Your task to perform on an android device: Open location settings Image 0: 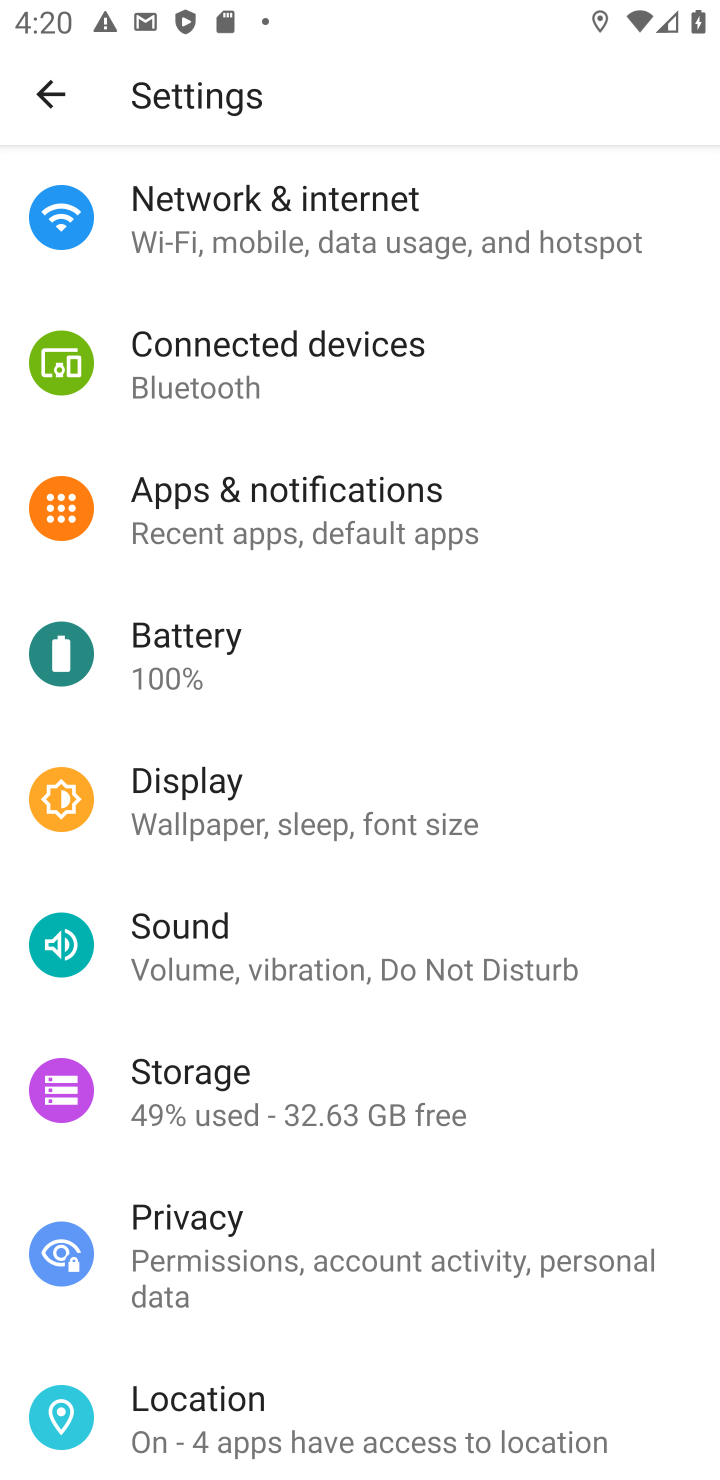
Step 0: press home button
Your task to perform on an android device: Open location settings Image 1: 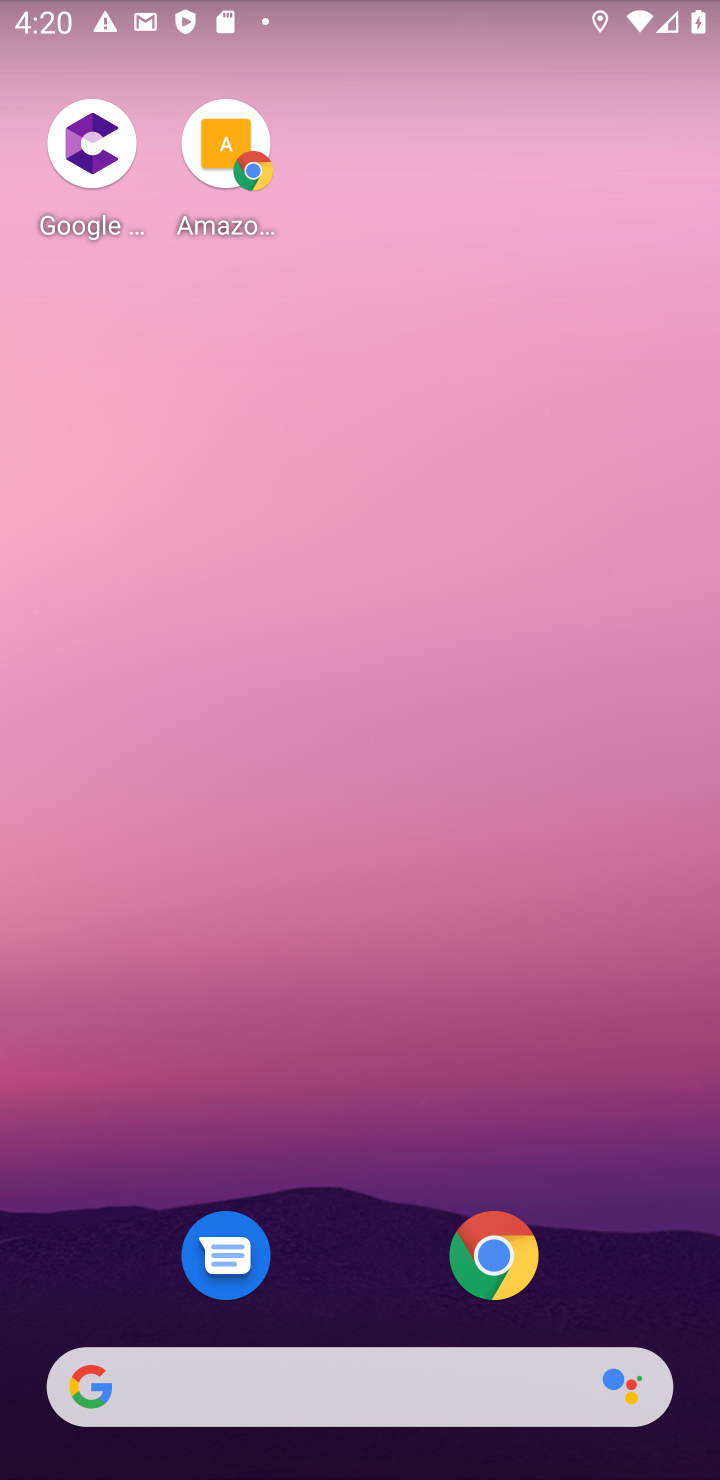
Step 1: drag from (308, 1417) to (568, 132)
Your task to perform on an android device: Open location settings Image 2: 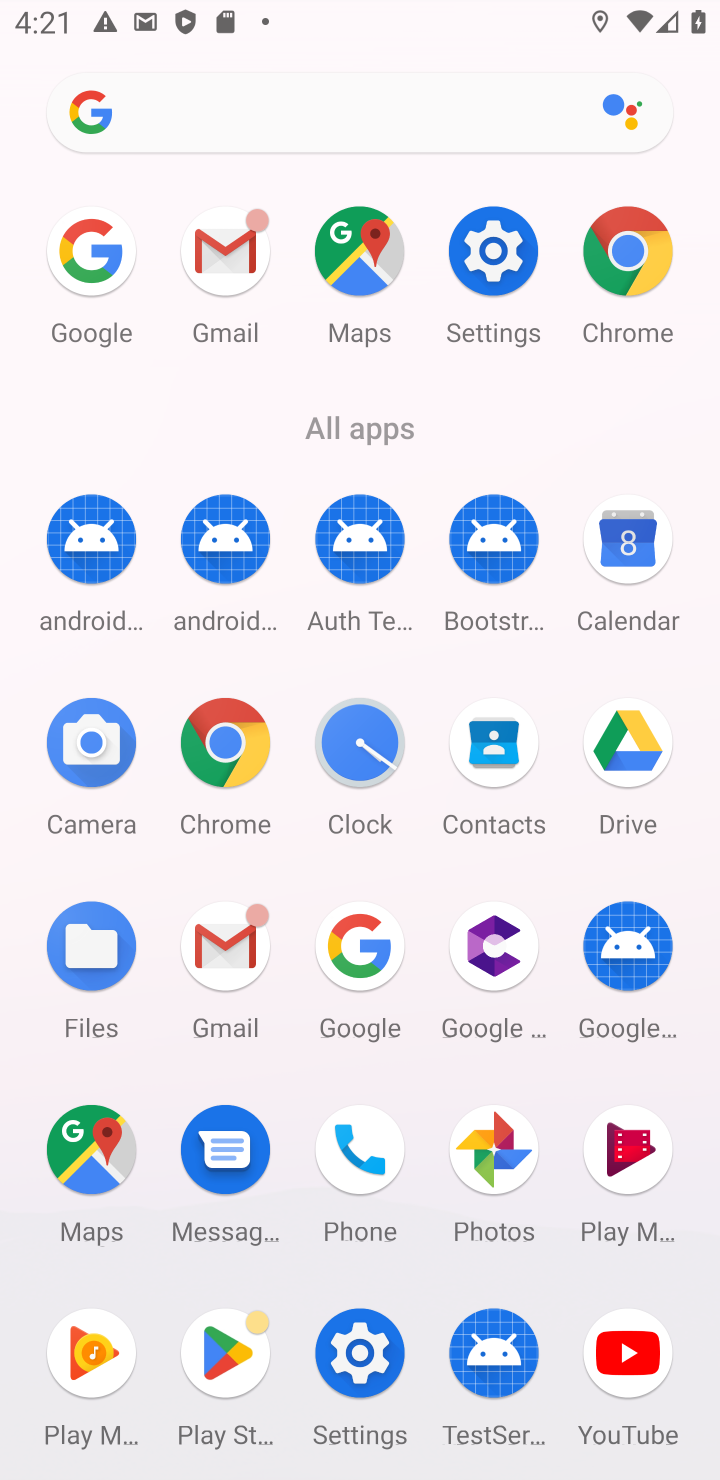
Step 2: click (492, 244)
Your task to perform on an android device: Open location settings Image 3: 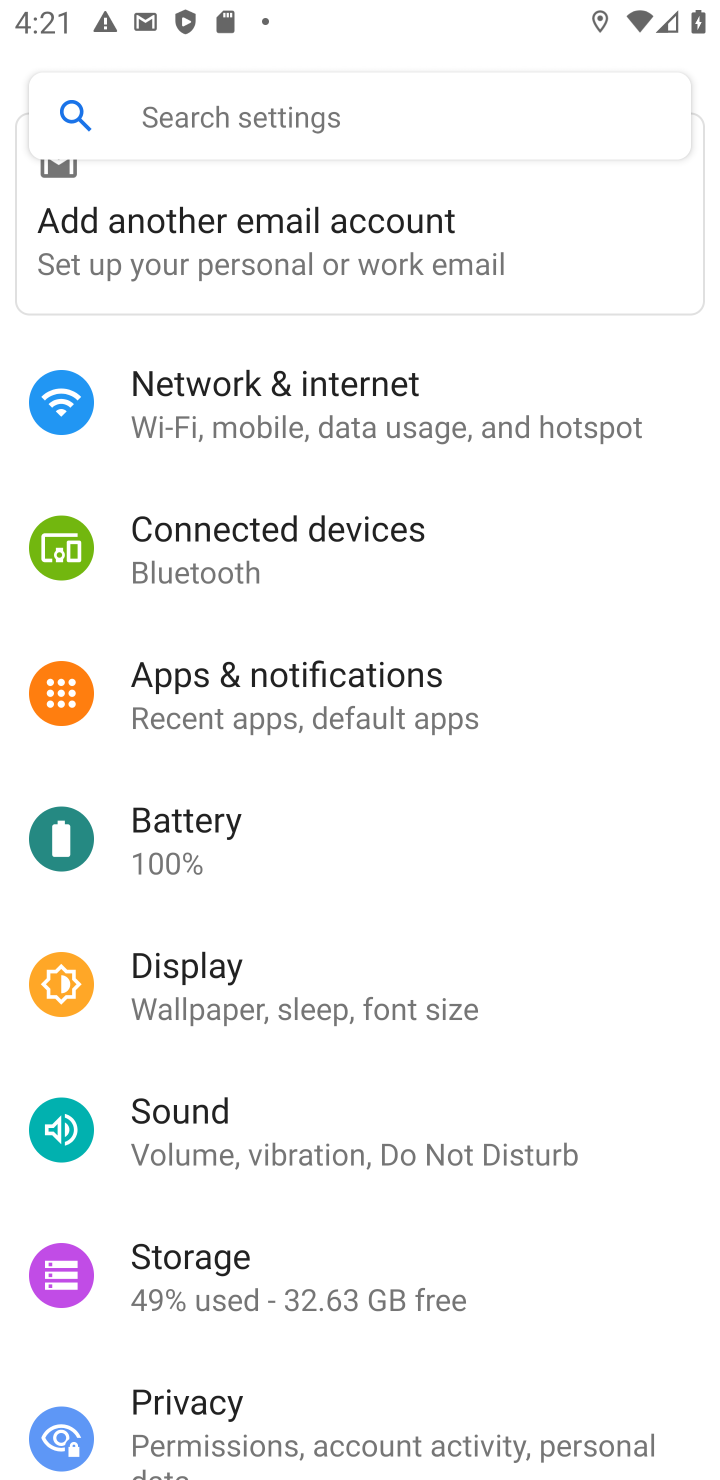
Step 3: drag from (296, 1092) to (412, 880)
Your task to perform on an android device: Open location settings Image 4: 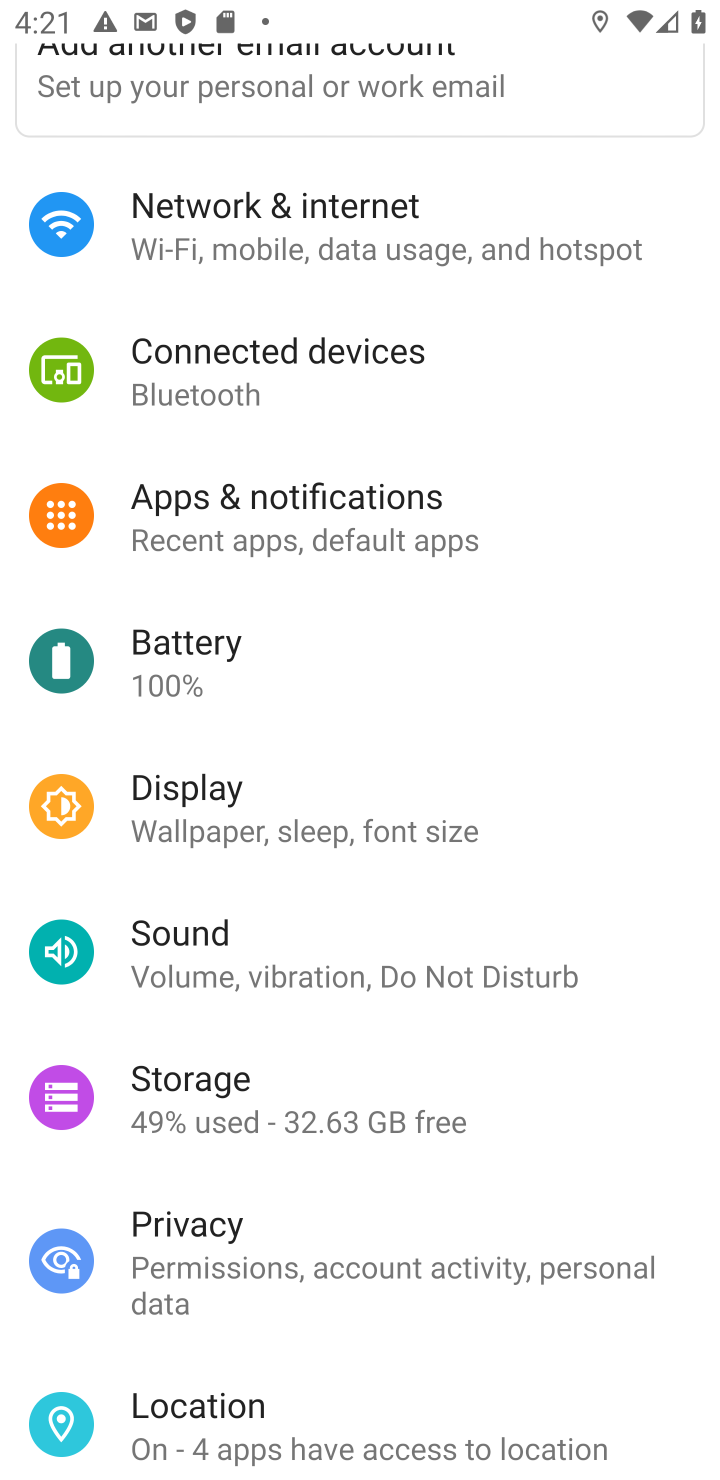
Step 4: drag from (314, 1180) to (424, 940)
Your task to perform on an android device: Open location settings Image 5: 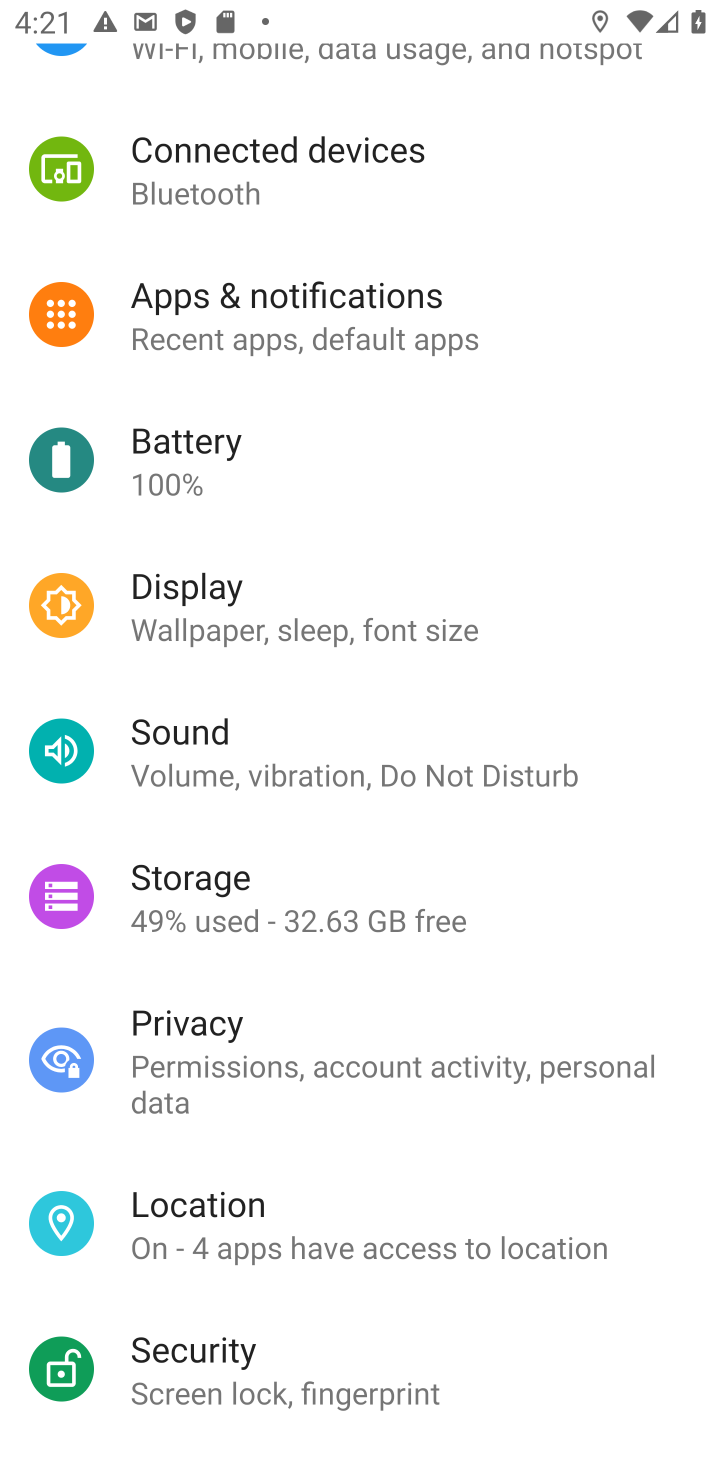
Step 5: click (255, 1209)
Your task to perform on an android device: Open location settings Image 6: 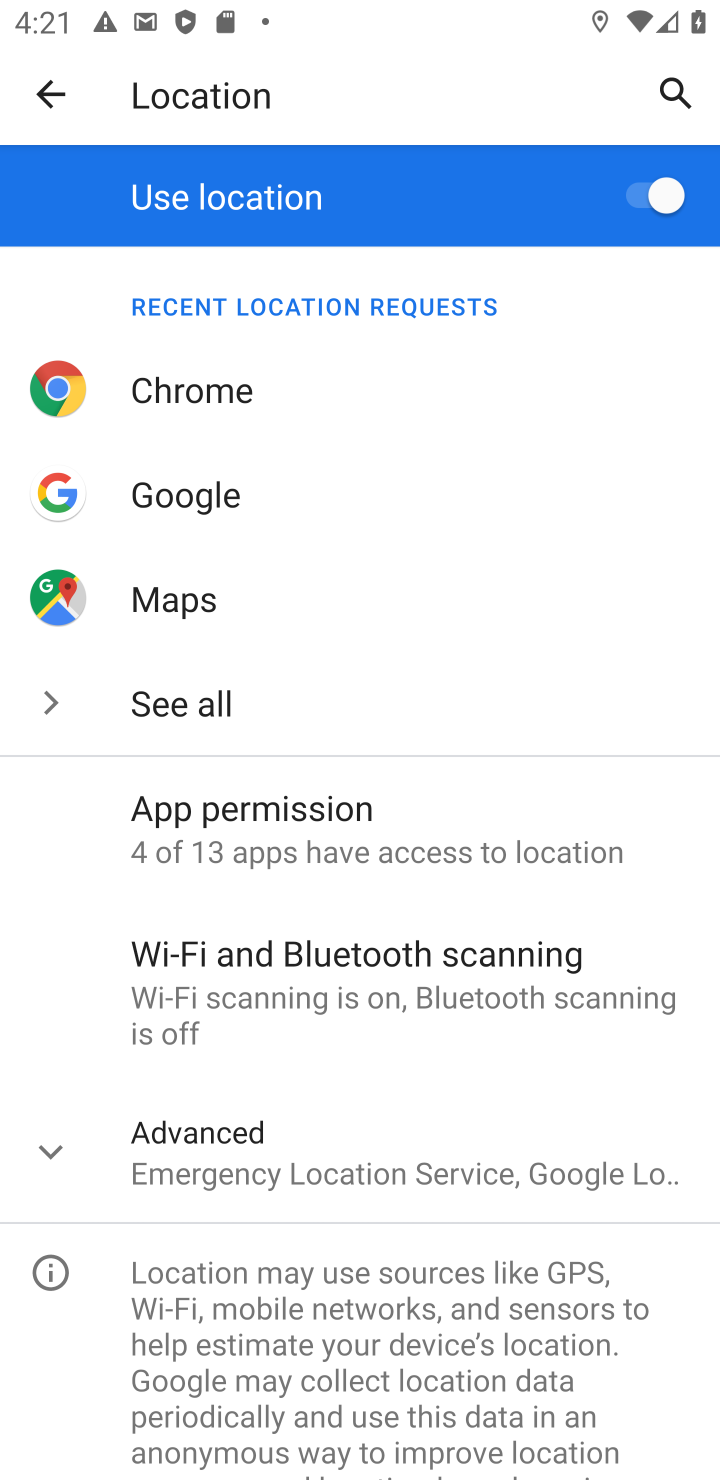
Step 6: task complete